Your task to perform on an android device: toggle show notifications on the lock screen Image 0: 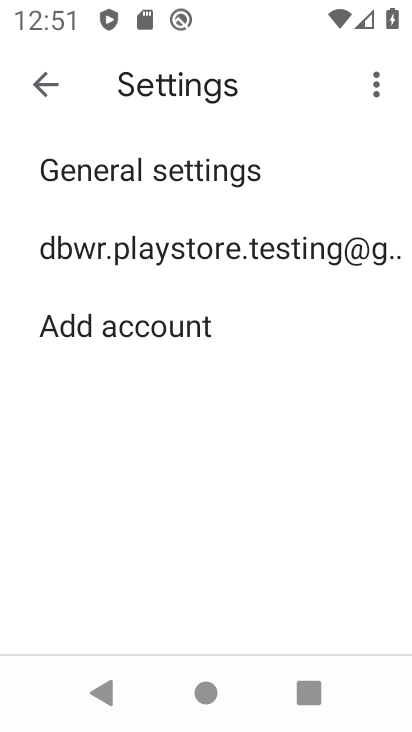
Step 0: press back button
Your task to perform on an android device: toggle show notifications on the lock screen Image 1: 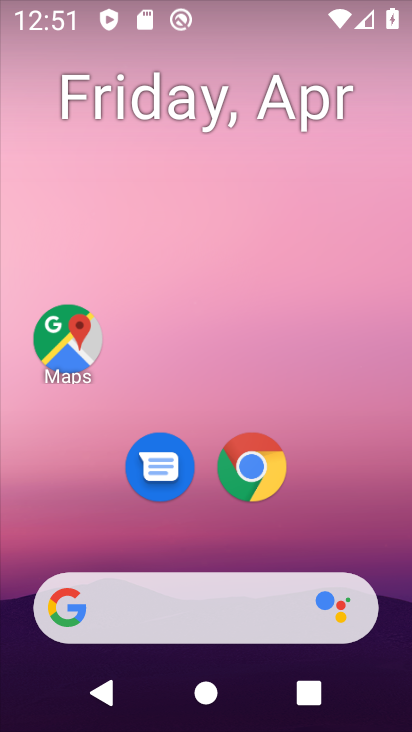
Step 1: drag from (137, 531) to (235, 49)
Your task to perform on an android device: toggle show notifications on the lock screen Image 2: 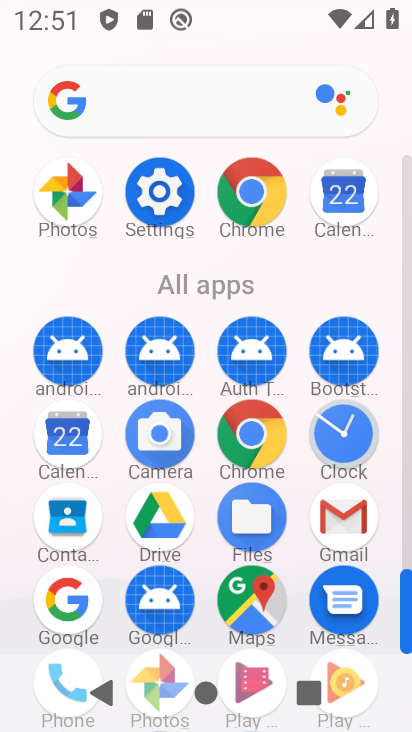
Step 2: drag from (124, 606) to (186, 372)
Your task to perform on an android device: toggle show notifications on the lock screen Image 3: 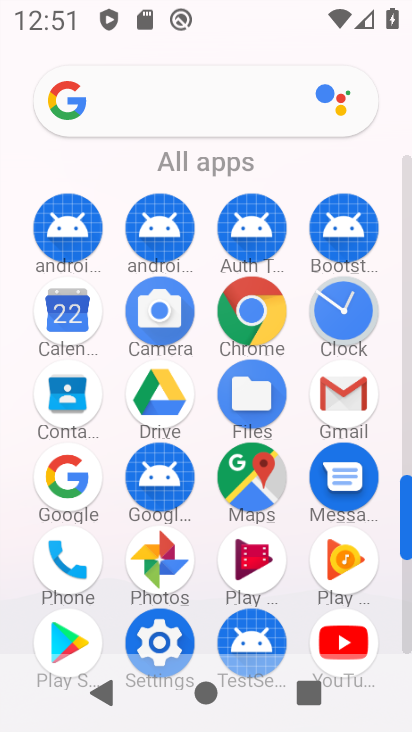
Step 3: click (148, 633)
Your task to perform on an android device: toggle show notifications on the lock screen Image 4: 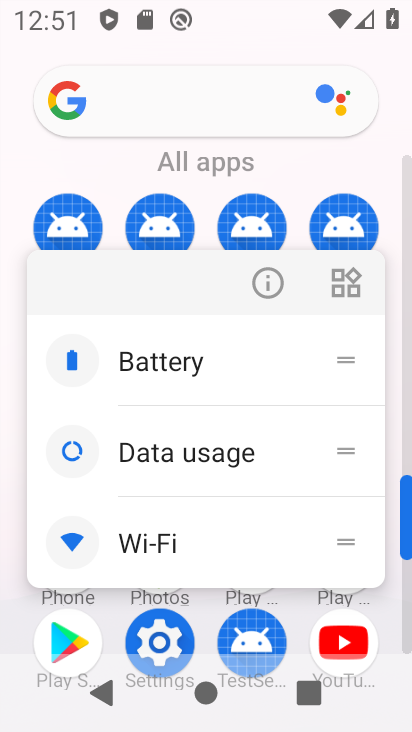
Step 4: click (186, 641)
Your task to perform on an android device: toggle show notifications on the lock screen Image 5: 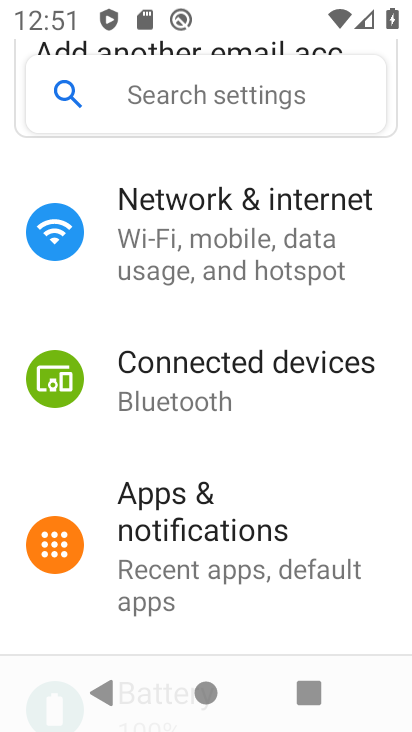
Step 5: drag from (198, 514) to (259, 244)
Your task to perform on an android device: toggle show notifications on the lock screen Image 6: 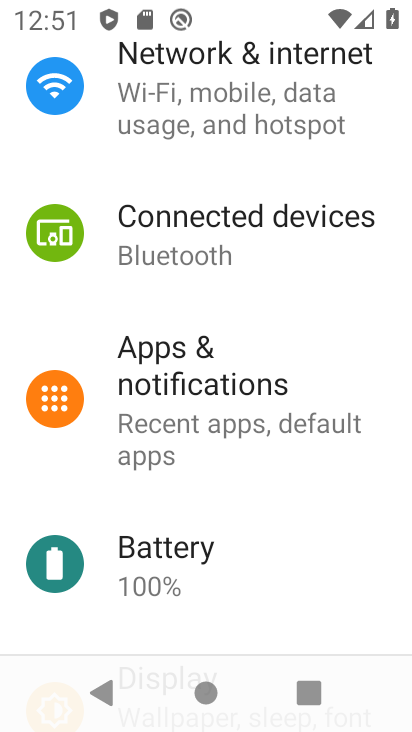
Step 6: click (214, 390)
Your task to perform on an android device: toggle show notifications on the lock screen Image 7: 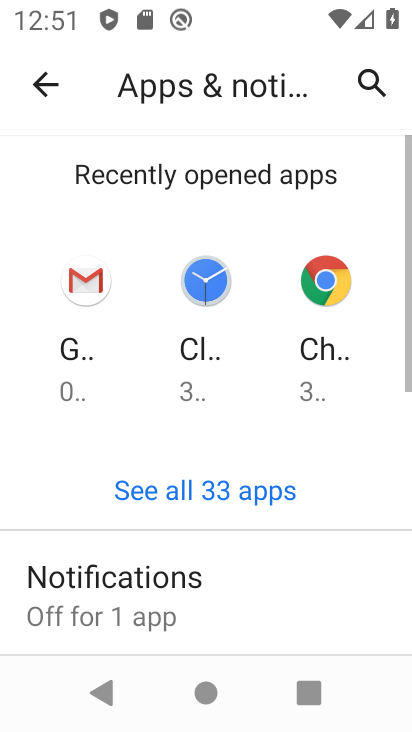
Step 7: drag from (199, 593) to (323, 218)
Your task to perform on an android device: toggle show notifications on the lock screen Image 8: 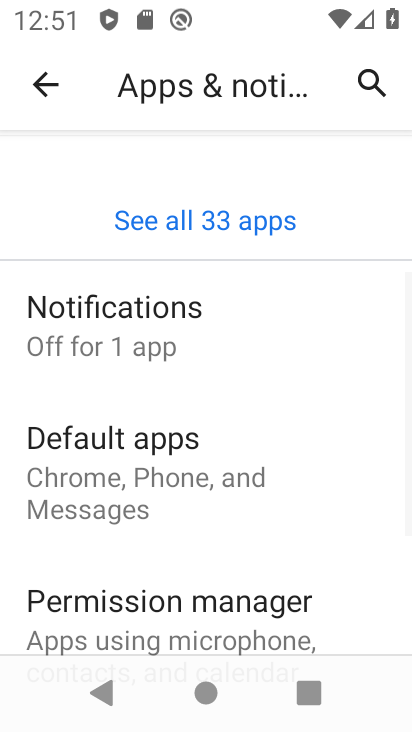
Step 8: click (225, 325)
Your task to perform on an android device: toggle show notifications on the lock screen Image 9: 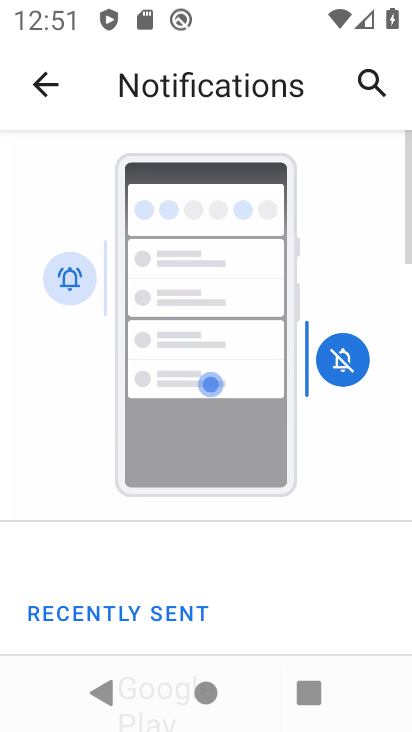
Step 9: drag from (208, 600) to (380, 94)
Your task to perform on an android device: toggle show notifications on the lock screen Image 10: 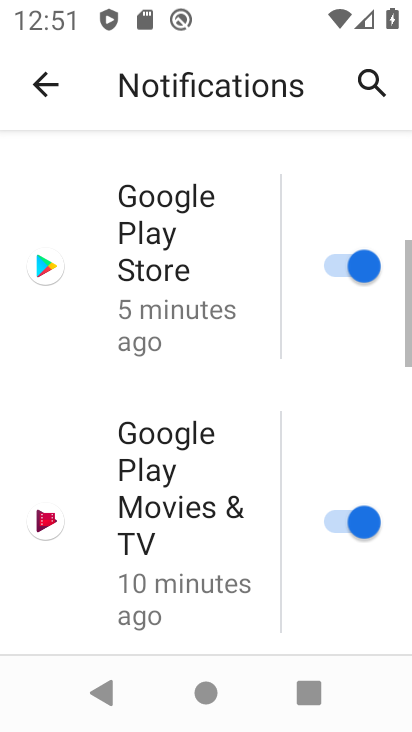
Step 10: drag from (172, 571) to (359, 91)
Your task to perform on an android device: toggle show notifications on the lock screen Image 11: 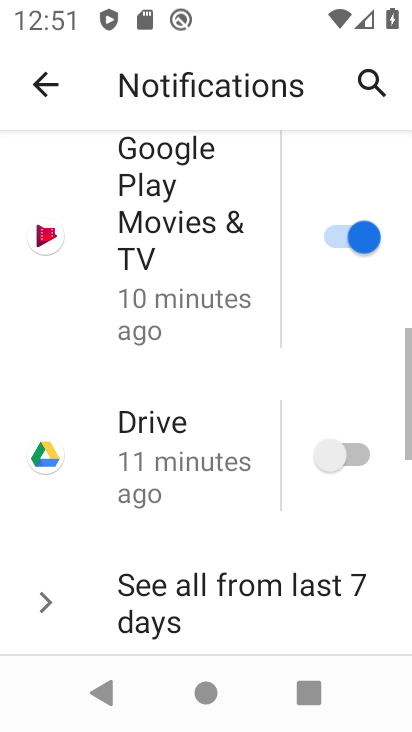
Step 11: drag from (181, 572) to (311, 110)
Your task to perform on an android device: toggle show notifications on the lock screen Image 12: 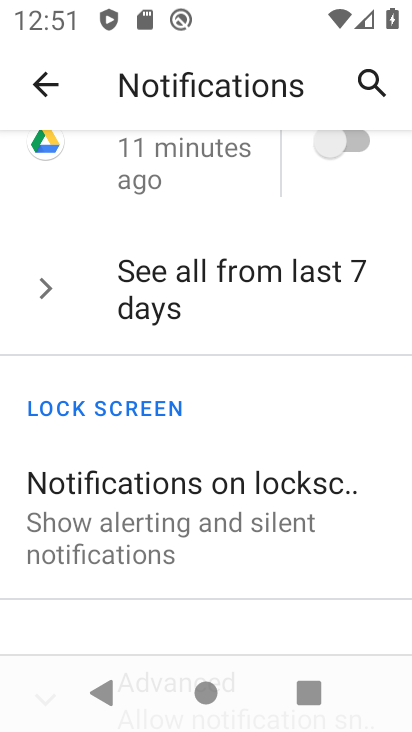
Step 12: click (231, 500)
Your task to perform on an android device: toggle show notifications on the lock screen Image 13: 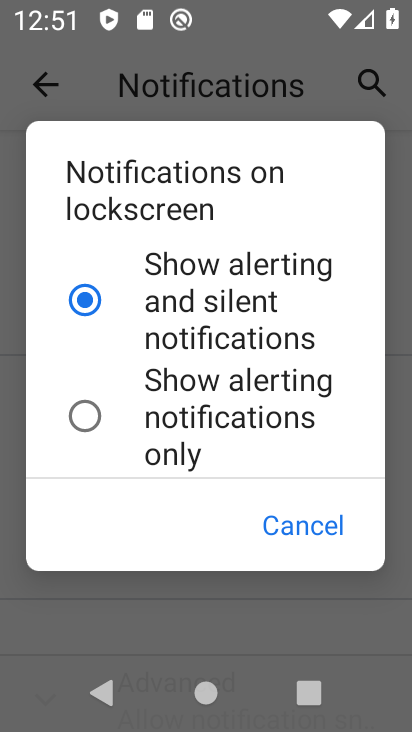
Step 13: drag from (137, 437) to (77, 440)
Your task to perform on an android device: toggle show notifications on the lock screen Image 14: 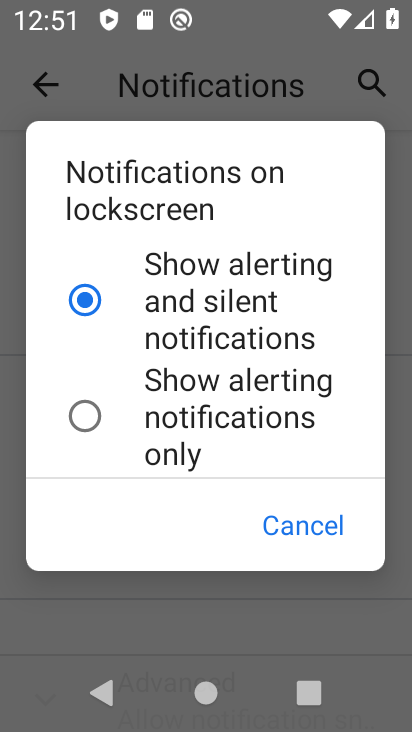
Step 14: drag from (147, 410) to (223, 174)
Your task to perform on an android device: toggle show notifications on the lock screen Image 15: 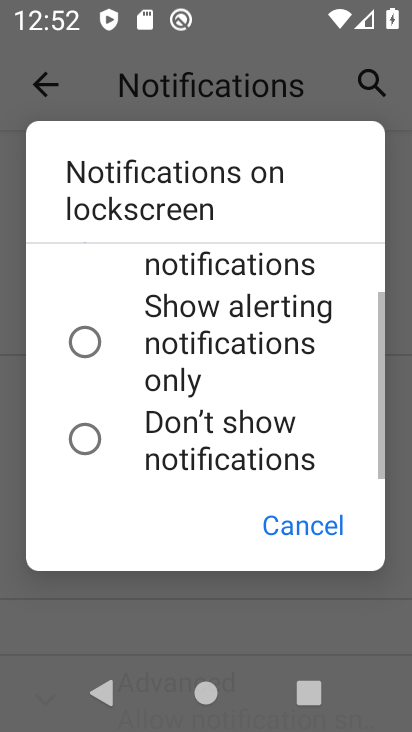
Step 15: click (78, 432)
Your task to perform on an android device: toggle show notifications on the lock screen Image 16: 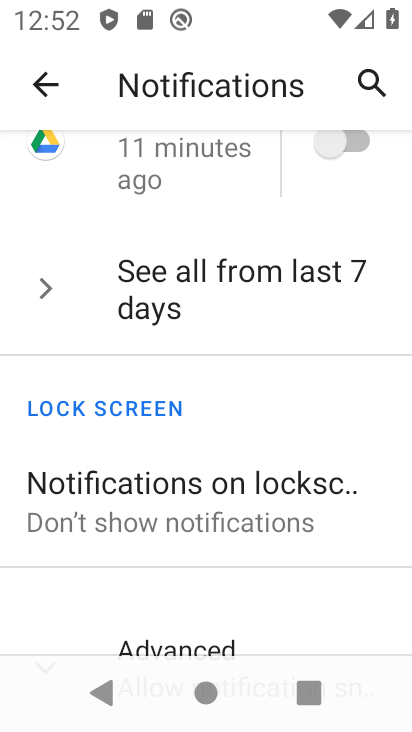
Step 16: task complete